Your task to perform on an android device: Open maps Image 0: 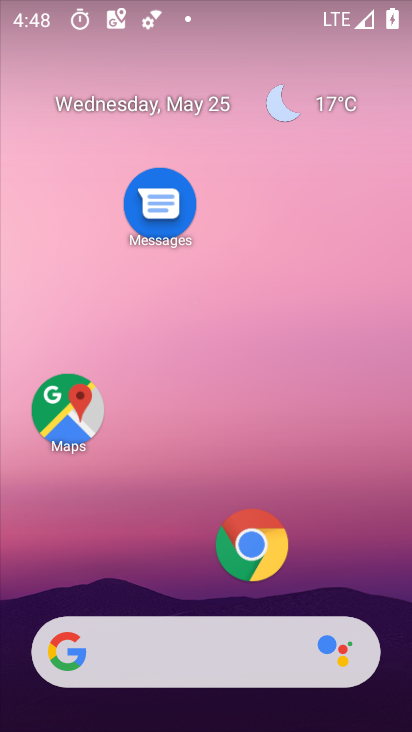
Step 0: click (81, 404)
Your task to perform on an android device: Open maps Image 1: 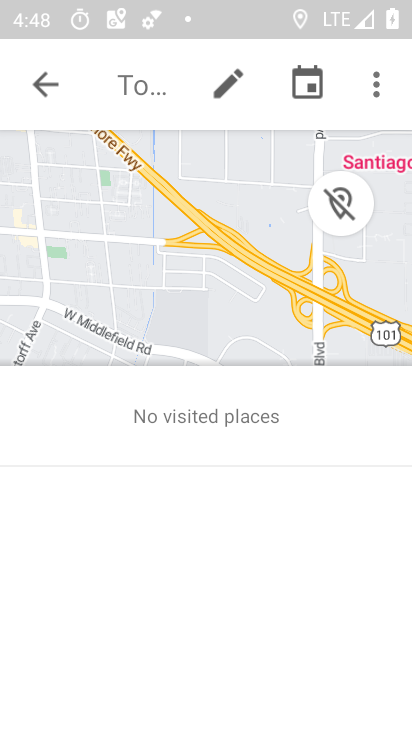
Step 1: task complete